Your task to perform on an android device: remove spam from my inbox in the gmail app Image 0: 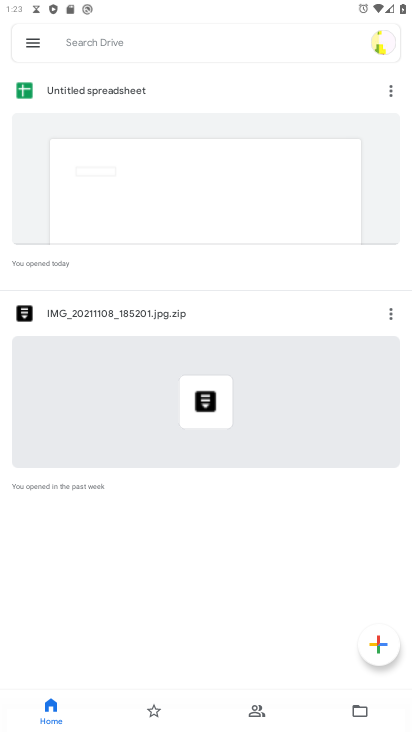
Step 0: press home button
Your task to perform on an android device: remove spam from my inbox in the gmail app Image 1: 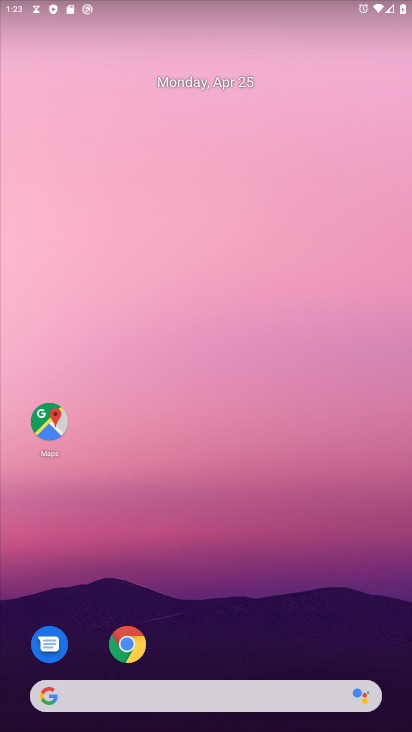
Step 1: drag from (247, 631) to (293, 50)
Your task to perform on an android device: remove spam from my inbox in the gmail app Image 2: 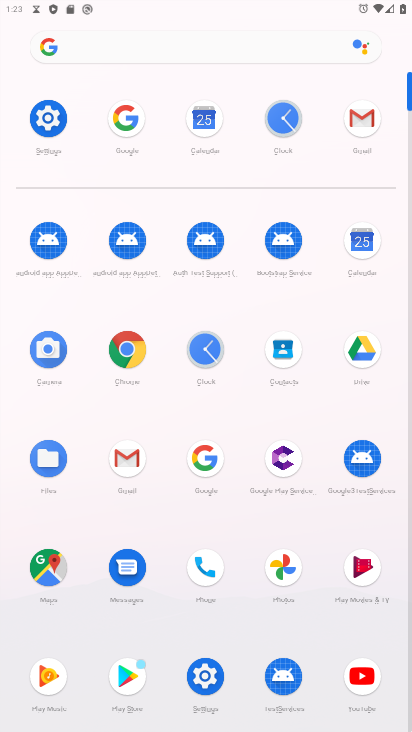
Step 2: click (362, 116)
Your task to perform on an android device: remove spam from my inbox in the gmail app Image 3: 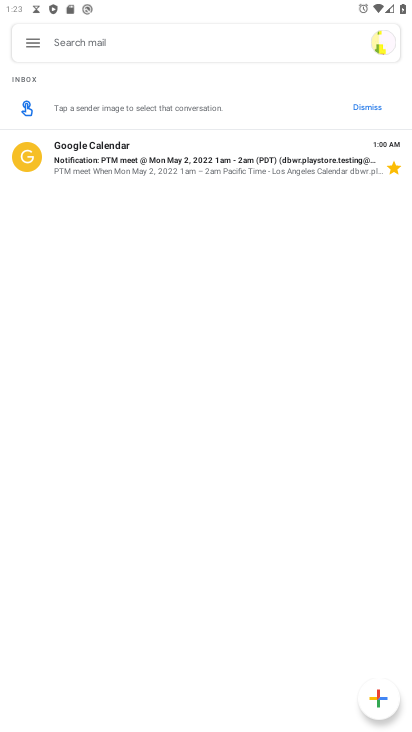
Step 3: click (23, 43)
Your task to perform on an android device: remove spam from my inbox in the gmail app Image 4: 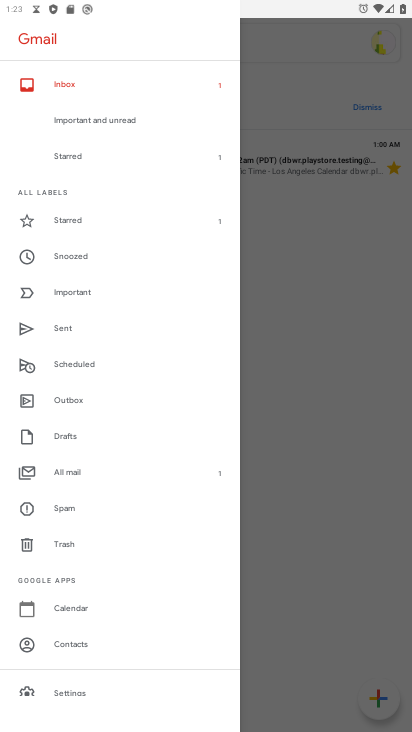
Step 4: click (69, 506)
Your task to perform on an android device: remove spam from my inbox in the gmail app Image 5: 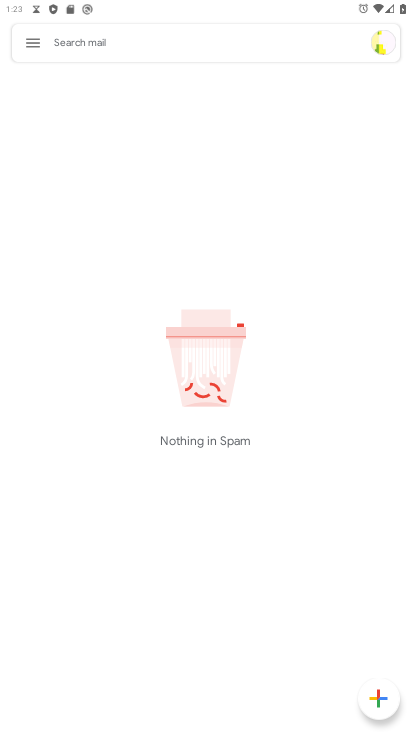
Step 5: task complete